Your task to perform on an android device: Open Google Image 0: 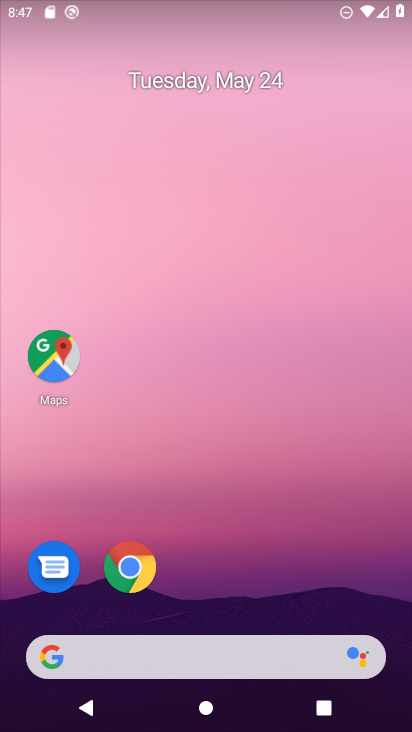
Step 0: press home button
Your task to perform on an android device: Open Google Image 1: 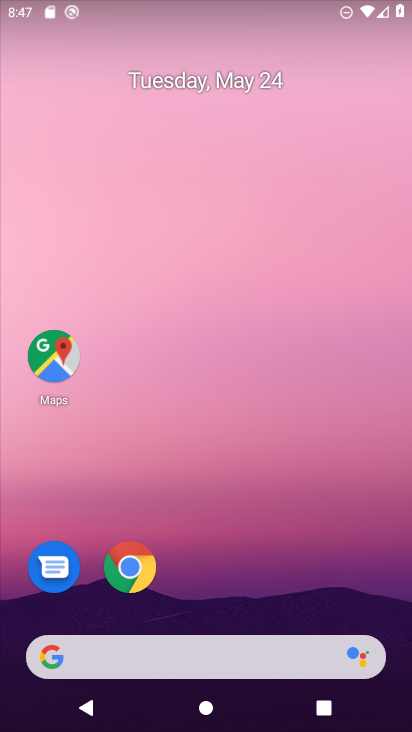
Step 1: drag from (150, 657) to (332, 90)
Your task to perform on an android device: Open Google Image 2: 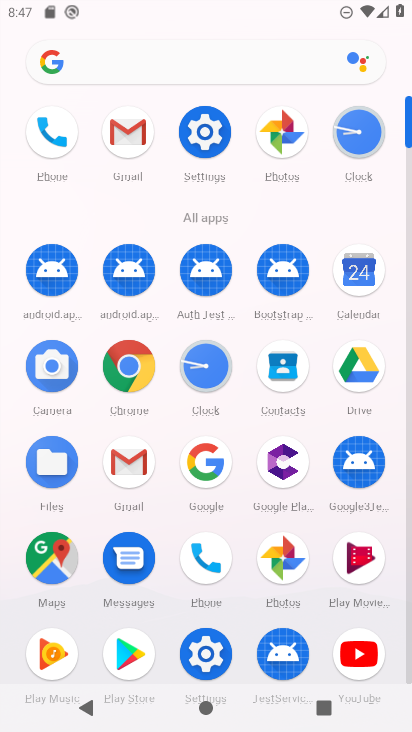
Step 2: click (211, 471)
Your task to perform on an android device: Open Google Image 3: 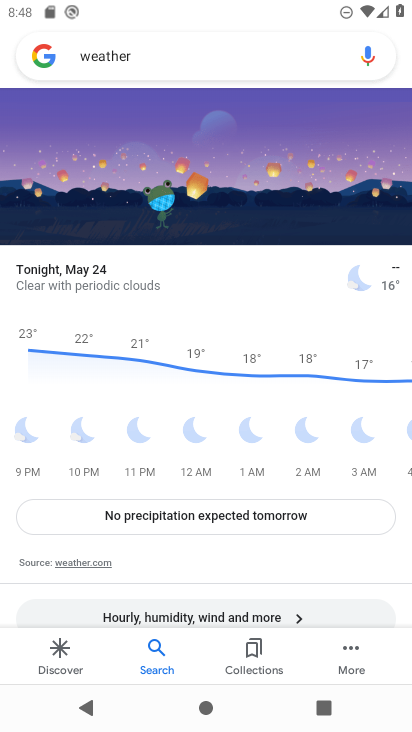
Step 3: task complete